Your task to perform on an android device: Turn on the flashlight Image 0: 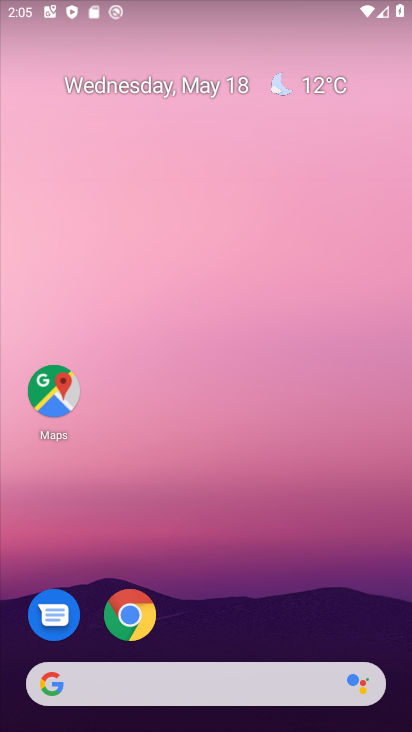
Step 0: drag from (344, 621) to (299, 29)
Your task to perform on an android device: Turn on the flashlight Image 1: 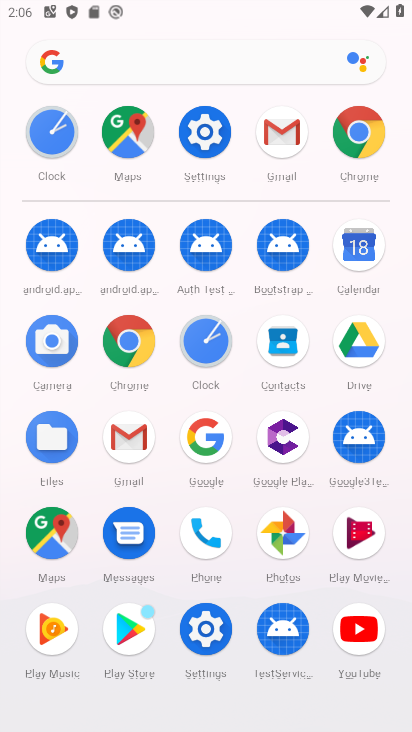
Step 1: click (210, 627)
Your task to perform on an android device: Turn on the flashlight Image 2: 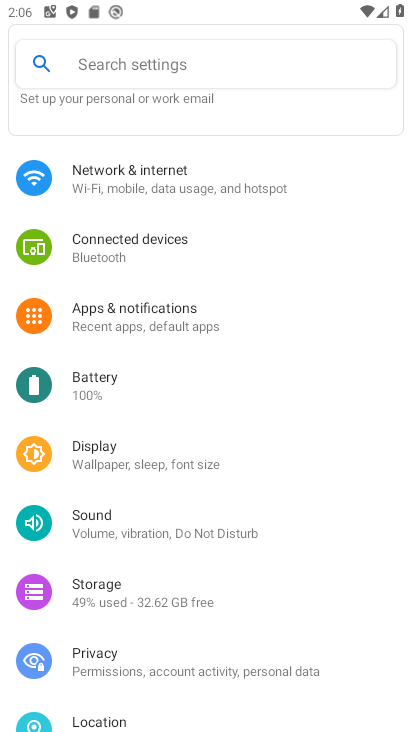
Step 2: task complete